Your task to perform on an android device: turn off airplane mode Image 0: 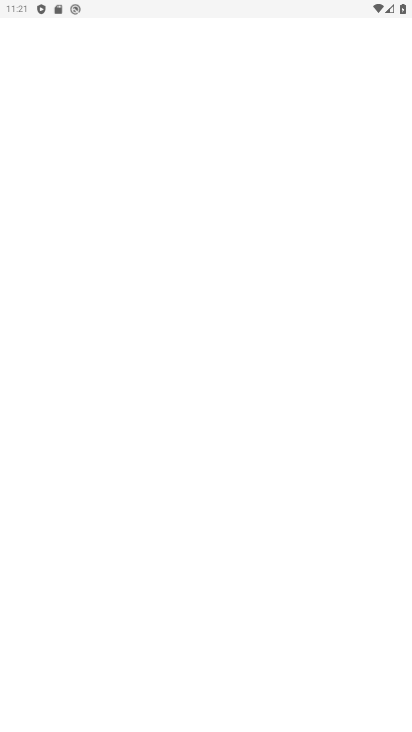
Step 0: drag from (240, 630) to (227, 412)
Your task to perform on an android device: turn off airplane mode Image 1: 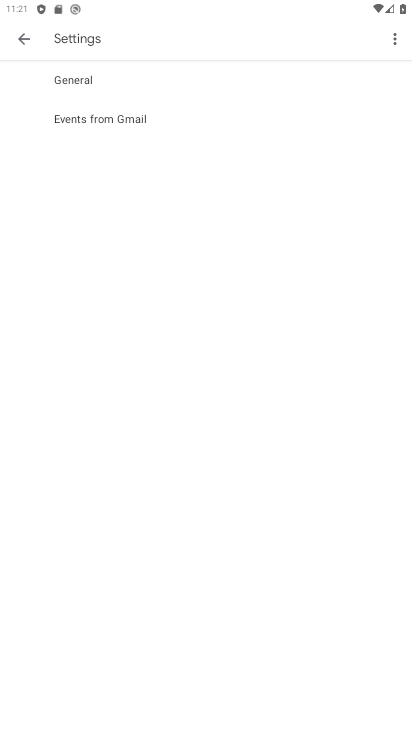
Step 1: press home button
Your task to perform on an android device: turn off airplane mode Image 2: 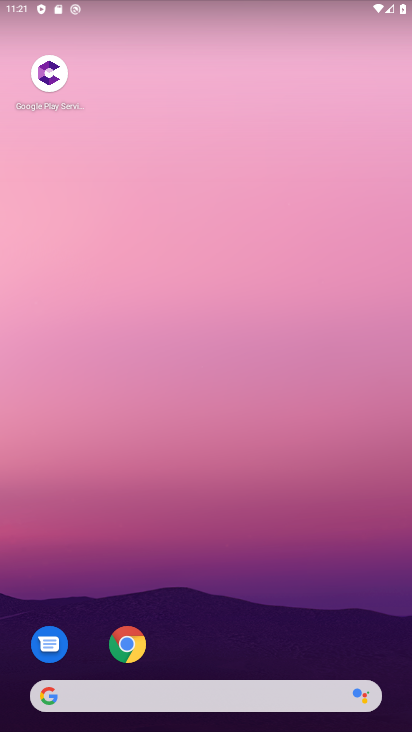
Step 2: drag from (237, 656) to (255, 109)
Your task to perform on an android device: turn off airplane mode Image 3: 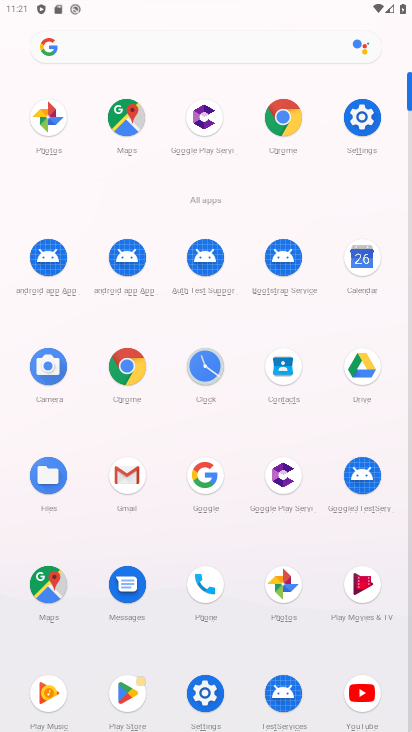
Step 3: click (358, 126)
Your task to perform on an android device: turn off airplane mode Image 4: 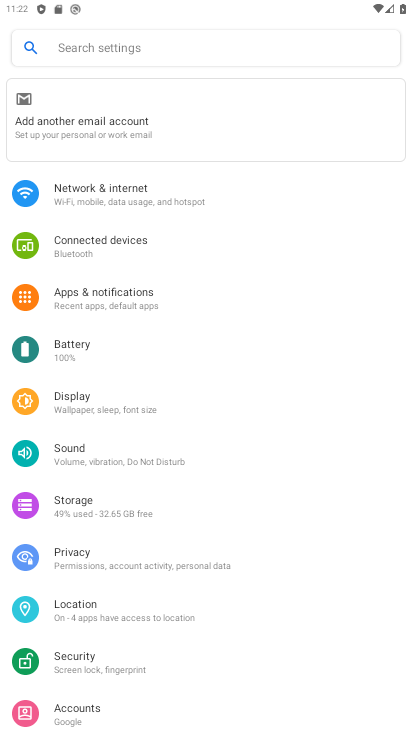
Step 4: click (169, 197)
Your task to perform on an android device: turn off airplane mode Image 5: 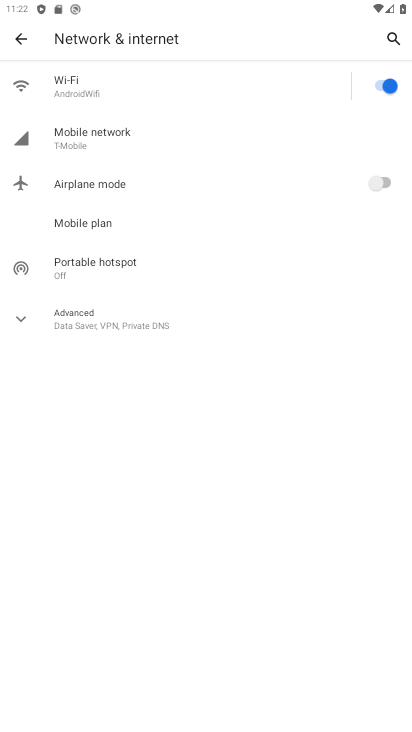
Step 5: task complete